Your task to perform on an android device: Go to Yahoo.com Image 0: 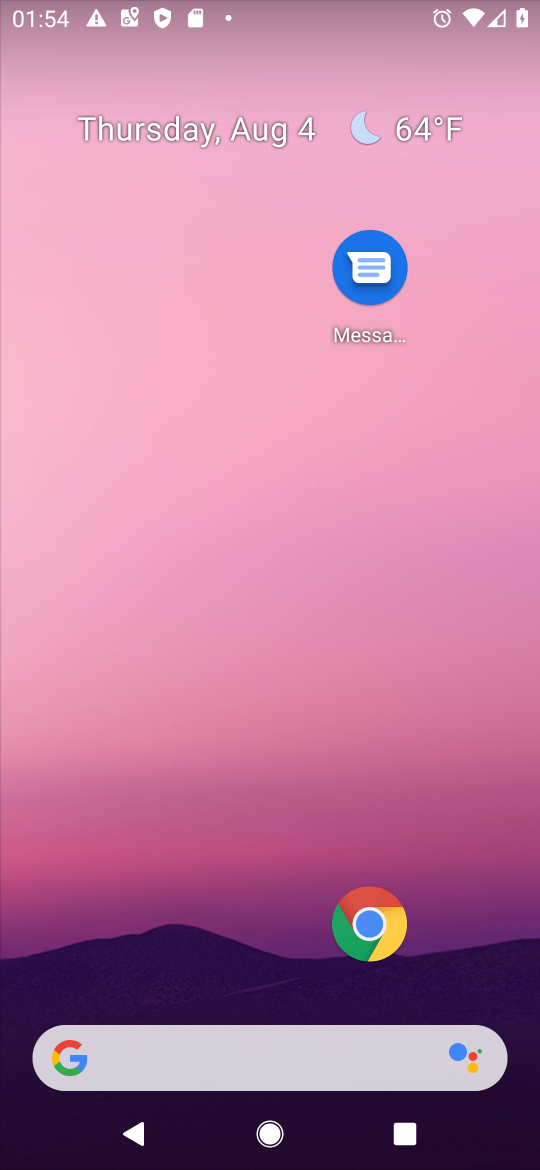
Step 0: click (122, 1065)
Your task to perform on an android device: Go to Yahoo.com Image 1: 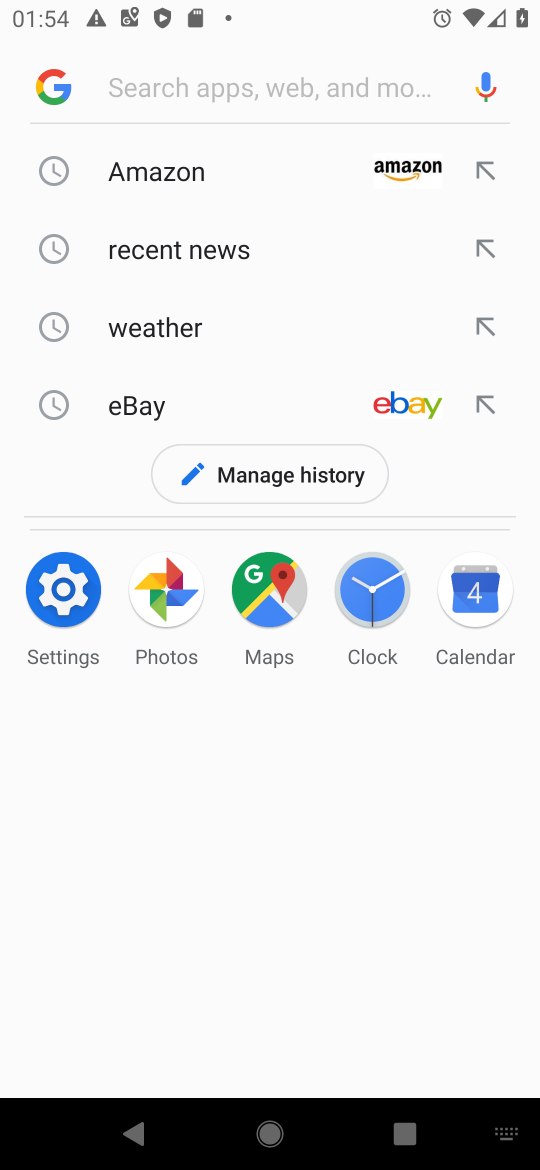
Step 1: type "Yahoo.com"
Your task to perform on an android device: Go to Yahoo.com Image 2: 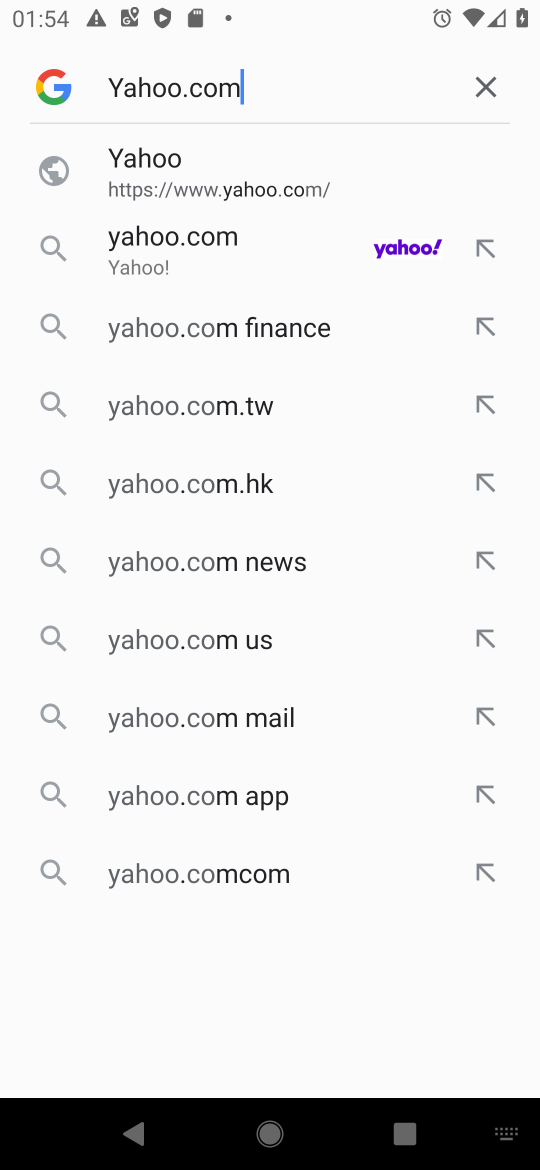
Step 2: type ""
Your task to perform on an android device: Go to Yahoo.com Image 3: 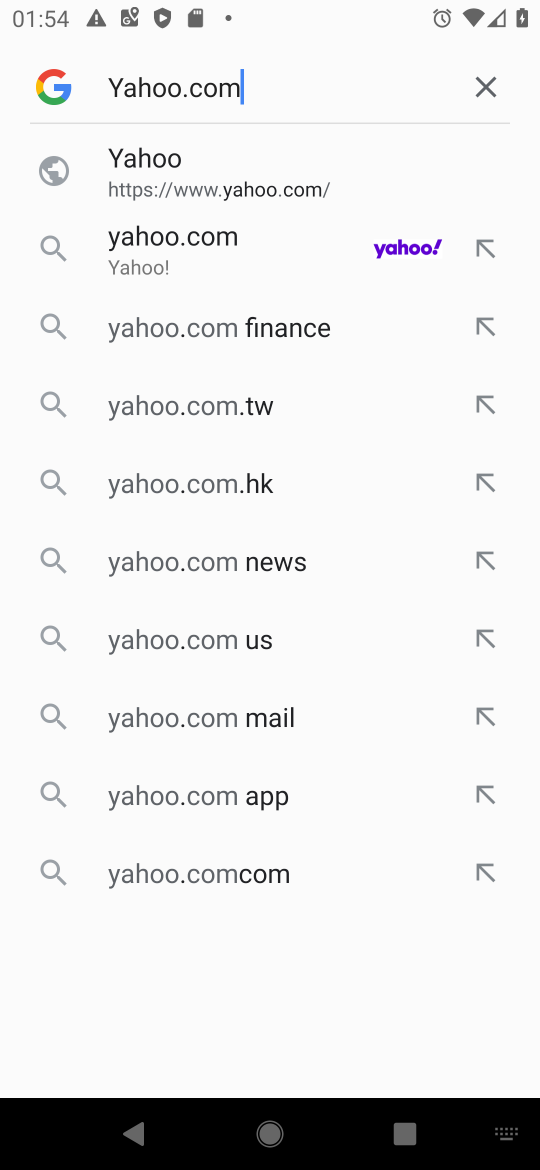
Step 3: click (123, 234)
Your task to perform on an android device: Go to Yahoo.com Image 4: 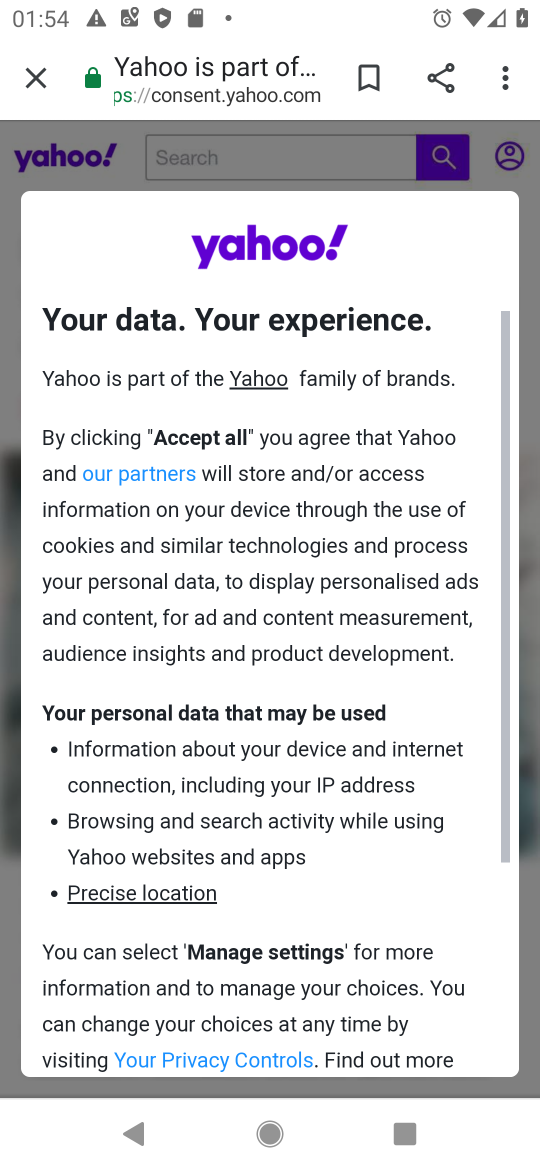
Step 4: task complete